Your task to perform on an android device: see sites visited before in the chrome app Image 0: 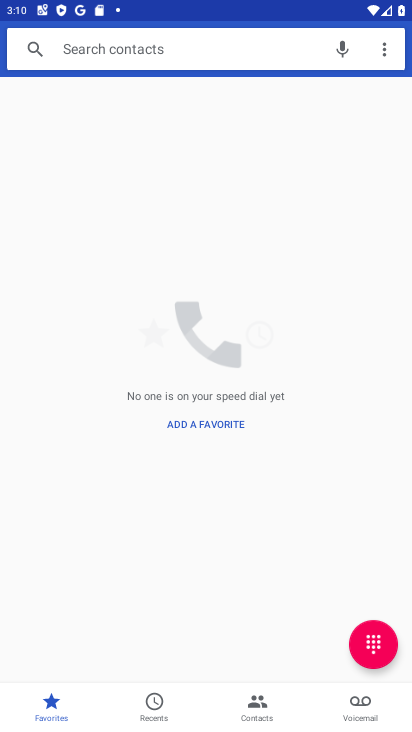
Step 0: press home button
Your task to perform on an android device: see sites visited before in the chrome app Image 1: 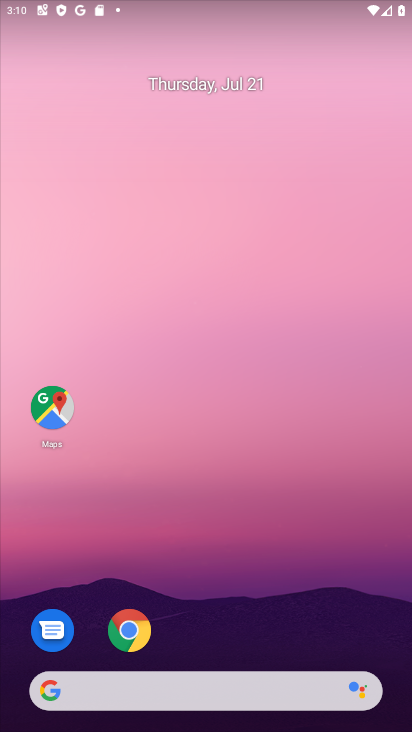
Step 1: drag from (308, 547) to (8, 2)
Your task to perform on an android device: see sites visited before in the chrome app Image 2: 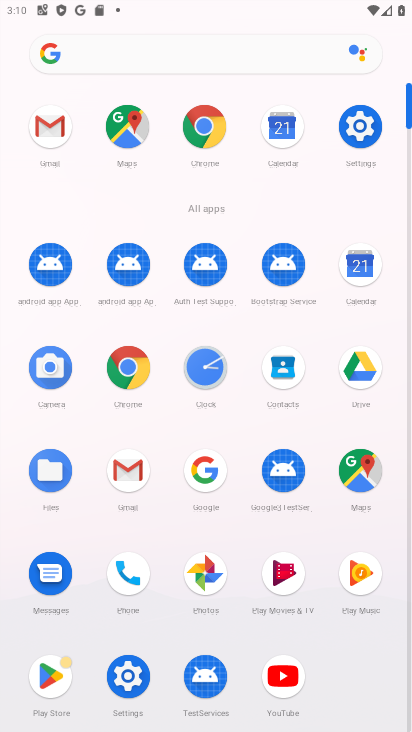
Step 2: click (205, 141)
Your task to perform on an android device: see sites visited before in the chrome app Image 3: 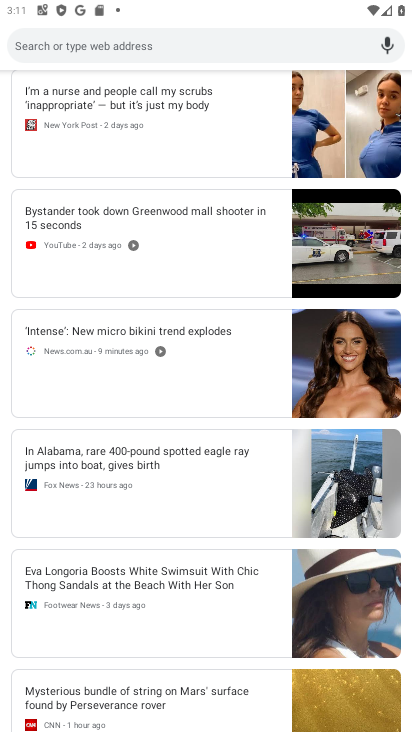
Step 3: drag from (203, 180) to (238, 622)
Your task to perform on an android device: see sites visited before in the chrome app Image 4: 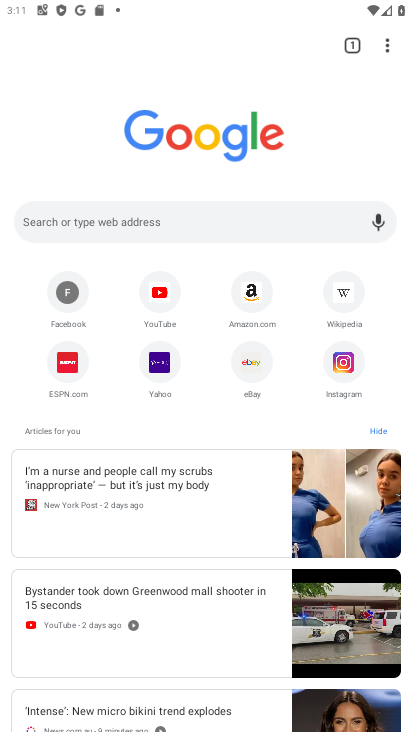
Step 4: drag from (387, 48) to (223, 219)
Your task to perform on an android device: see sites visited before in the chrome app Image 5: 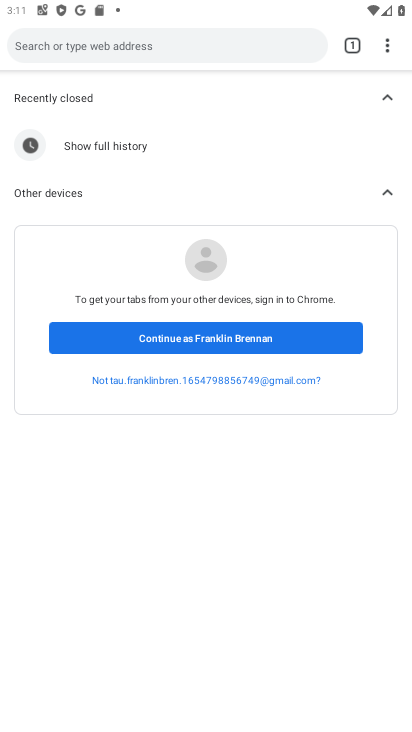
Step 5: click (163, 341)
Your task to perform on an android device: see sites visited before in the chrome app Image 6: 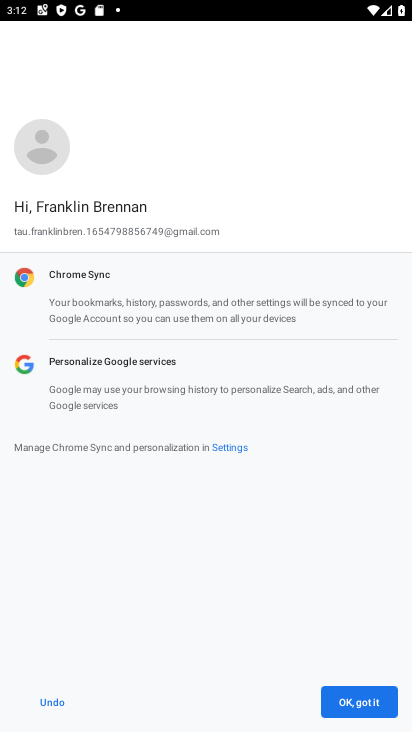
Step 6: click (362, 710)
Your task to perform on an android device: see sites visited before in the chrome app Image 7: 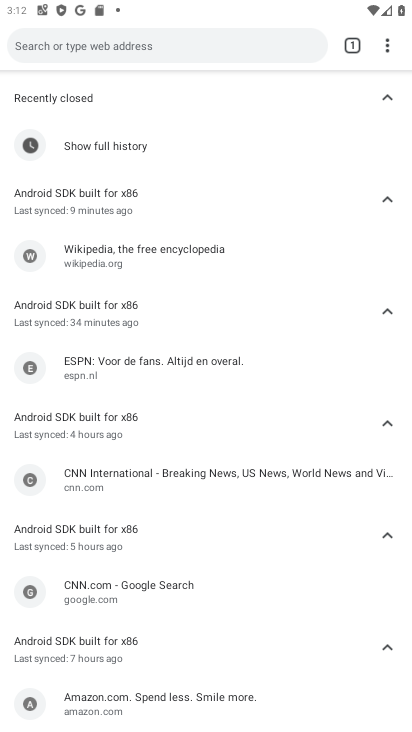
Step 7: task complete